Your task to perform on an android device: change notifications settings Image 0: 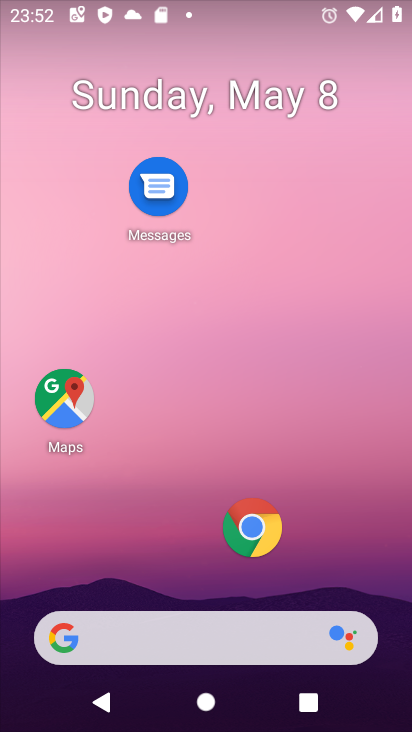
Step 0: drag from (176, 462) to (240, 27)
Your task to perform on an android device: change notifications settings Image 1: 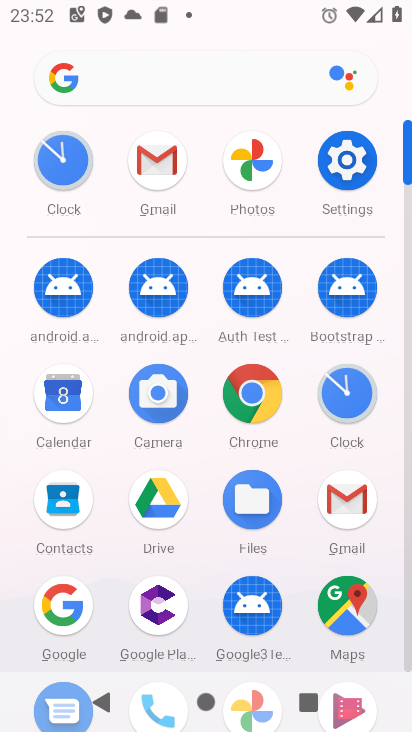
Step 1: click (342, 160)
Your task to perform on an android device: change notifications settings Image 2: 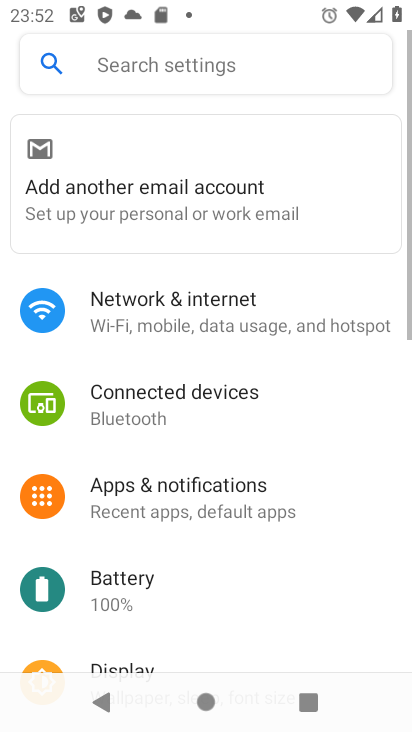
Step 2: drag from (248, 595) to (280, 112)
Your task to perform on an android device: change notifications settings Image 3: 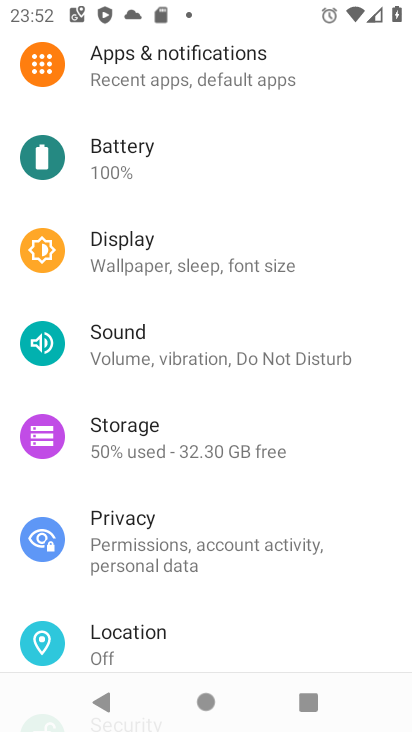
Step 3: click (224, 80)
Your task to perform on an android device: change notifications settings Image 4: 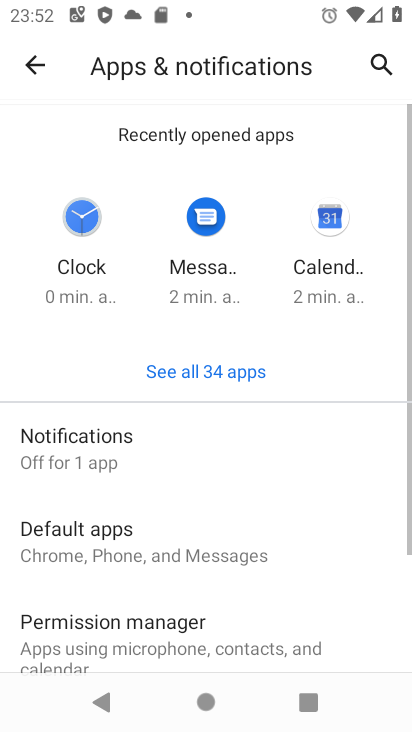
Step 4: click (136, 453)
Your task to perform on an android device: change notifications settings Image 5: 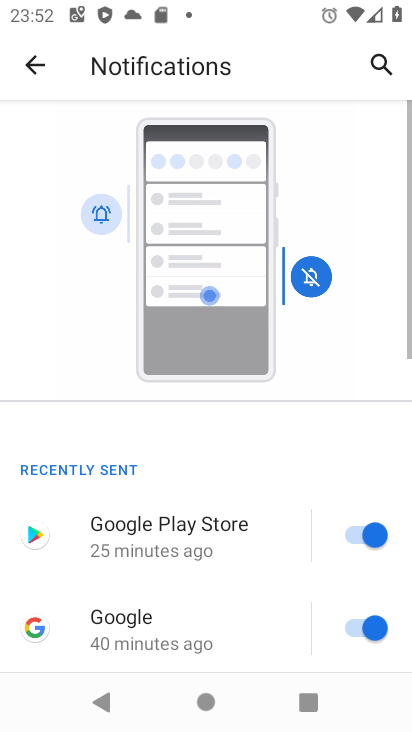
Step 5: drag from (230, 492) to (226, 217)
Your task to perform on an android device: change notifications settings Image 6: 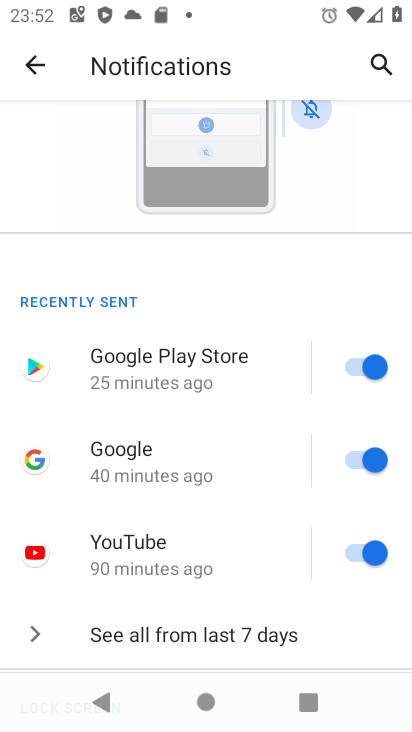
Step 6: drag from (228, 563) to (238, 112)
Your task to perform on an android device: change notifications settings Image 7: 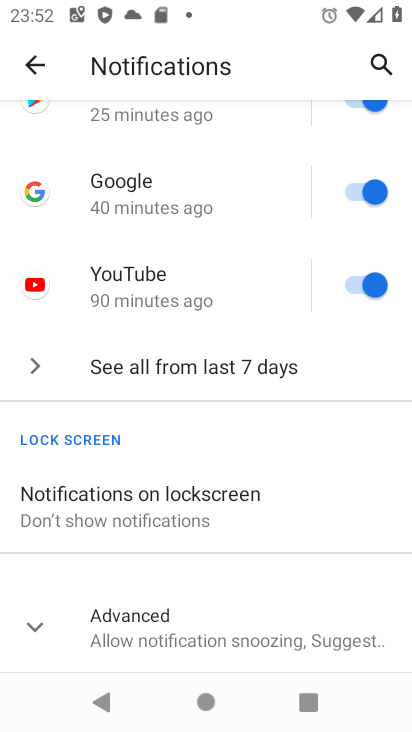
Step 7: drag from (253, 554) to (274, 247)
Your task to perform on an android device: change notifications settings Image 8: 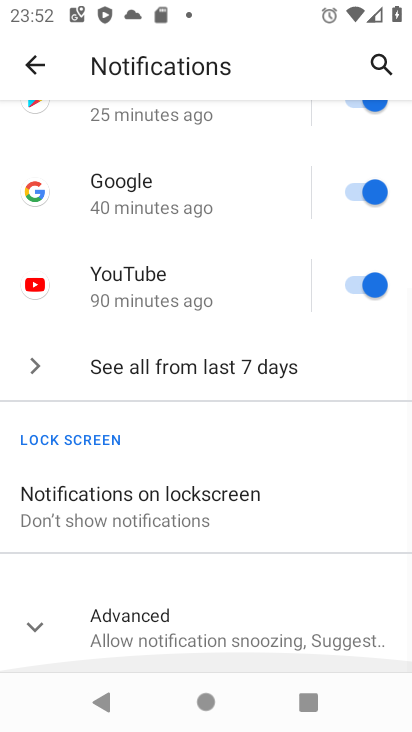
Step 8: click (241, 618)
Your task to perform on an android device: change notifications settings Image 9: 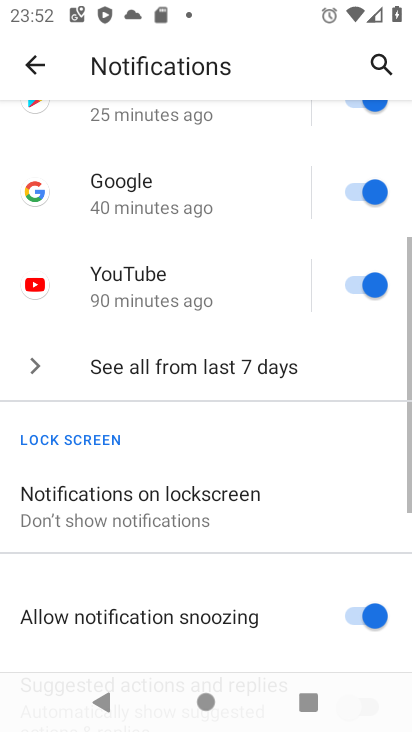
Step 9: click (347, 639)
Your task to perform on an android device: change notifications settings Image 10: 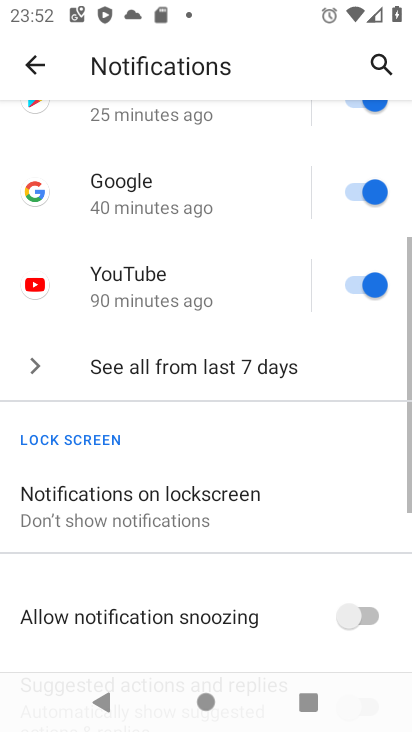
Step 10: drag from (271, 608) to (297, 313)
Your task to perform on an android device: change notifications settings Image 11: 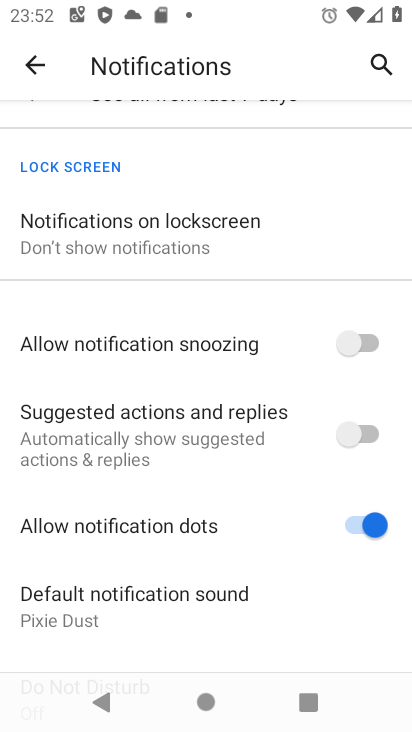
Step 11: click (368, 532)
Your task to perform on an android device: change notifications settings Image 12: 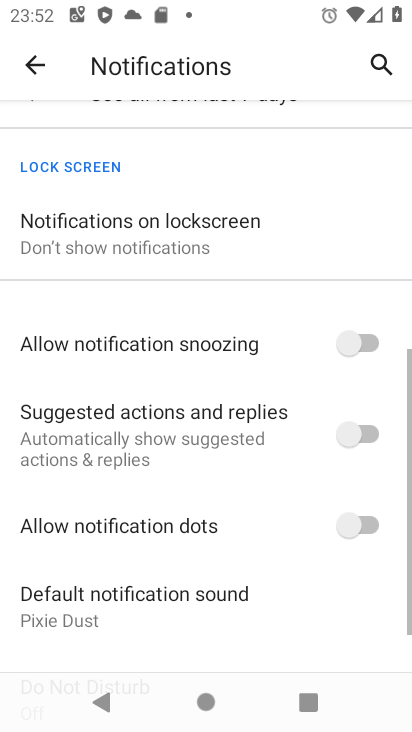
Step 12: click (344, 431)
Your task to perform on an android device: change notifications settings Image 13: 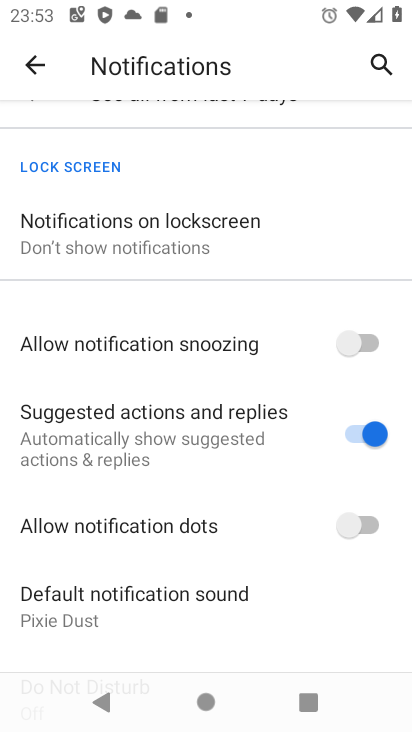
Step 13: task complete